Your task to perform on an android device: Open internet settings Image 0: 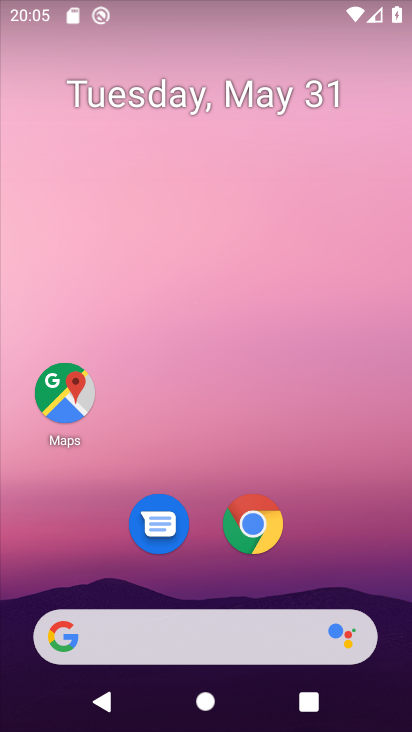
Step 0: drag from (223, 457) to (196, 24)
Your task to perform on an android device: Open internet settings Image 1: 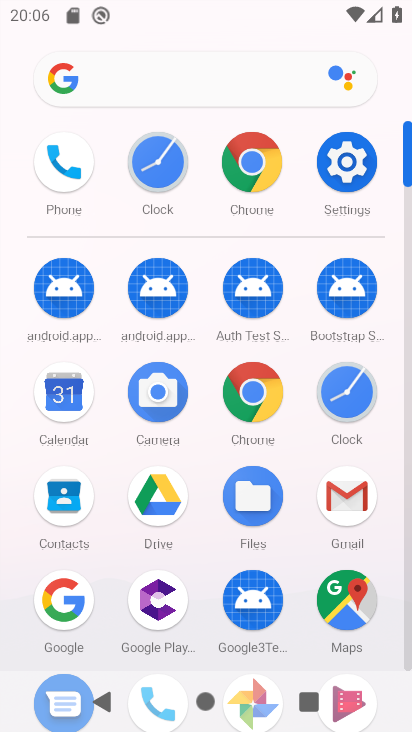
Step 1: click (346, 161)
Your task to perform on an android device: Open internet settings Image 2: 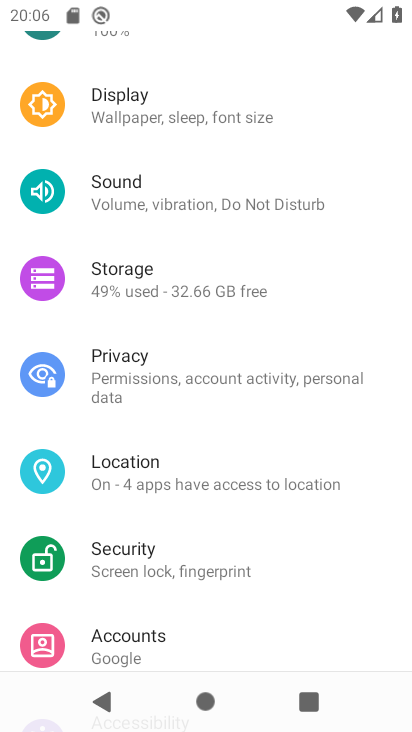
Step 2: drag from (225, 131) to (201, 613)
Your task to perform on an android device: Open internet settings Image 3: 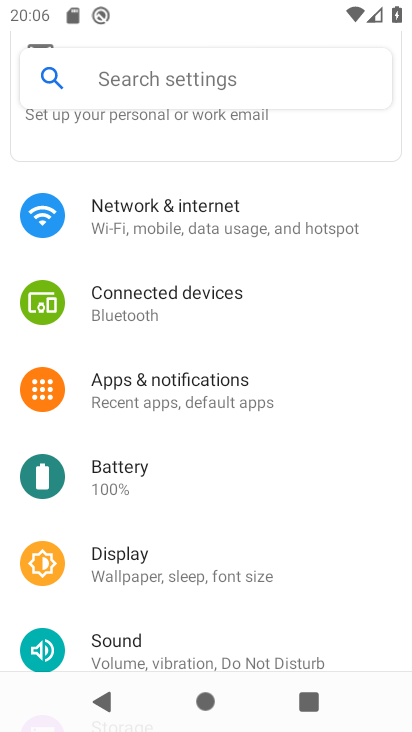
Step 3: click (214, 218)
Your task to perform on an android device: Open internet settings Image 4: 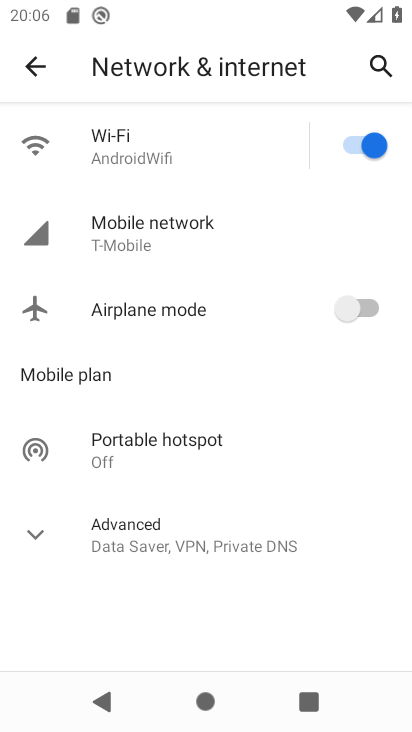
Step 4: task complete